Your task to perform on an android device: turn on wifi Image 0: 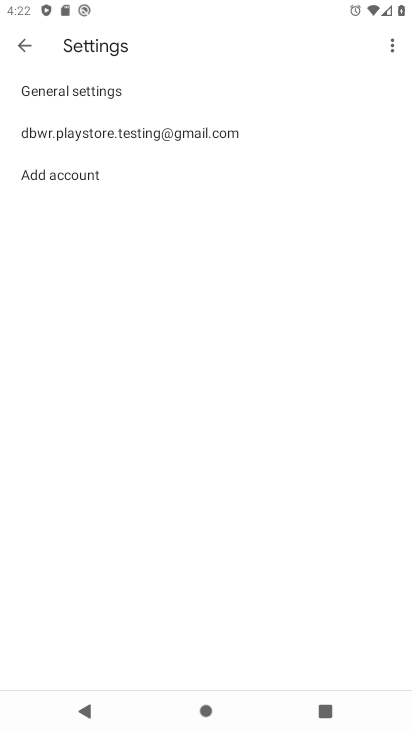
Step 0: press home button
Your task to perform on an android device: turn on wifi Image 1: 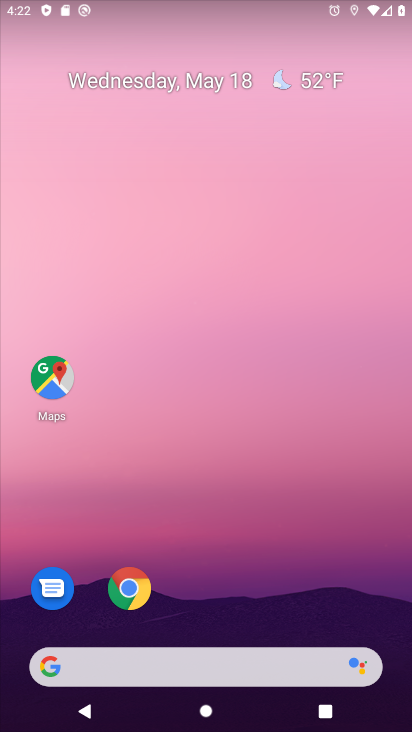
Step 1: drag from (291, 553) to (341, 173)
Your task to perform on an android device: turn on wifi Image 2: 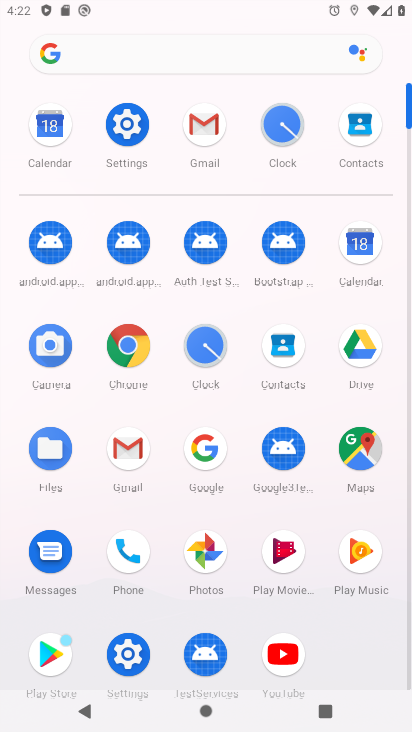
Step 2: click (130, 124)
Your task to perform on an android device: turn on wifi Image 3: 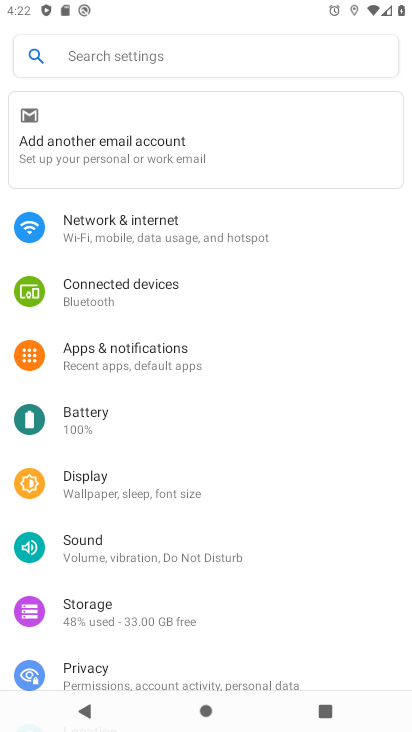
Step 3: click (148, 230)
Your task to perform on an android device: turn on wifi Image 4: 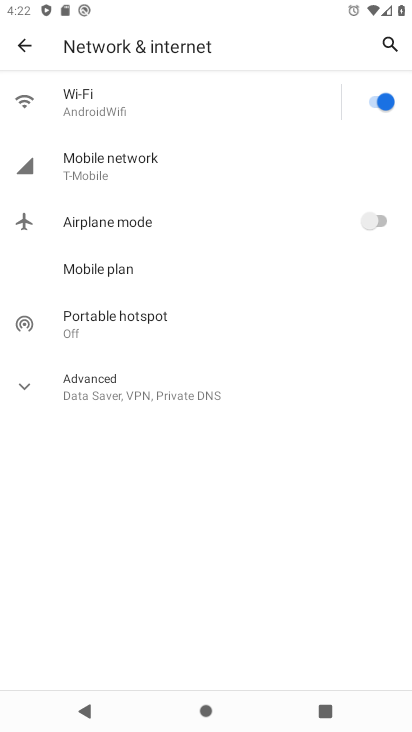
Step 4: click (217, 110)
Your task to perform on an android device: turn on wifi Image 5: 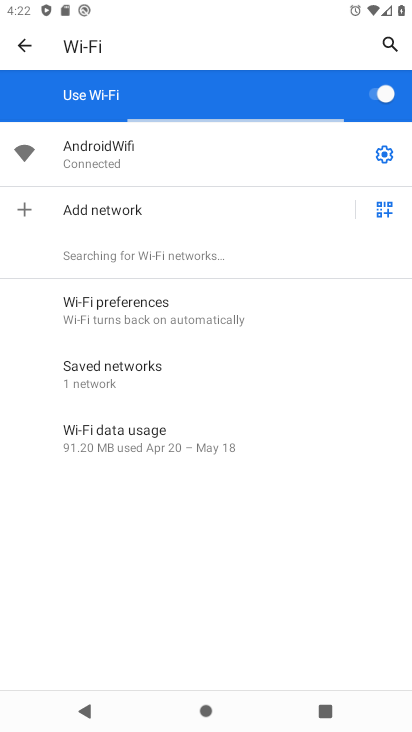
Step 5: task complete